Your task to perform on an android device: turn off picture-in-picture Image 0: 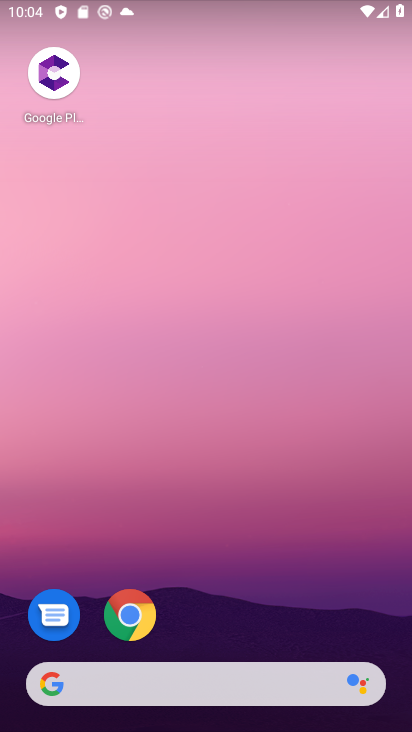
Step 0: click (129, 617)
Your task to perform on an android device: turn off picture-in-picture Image 1: 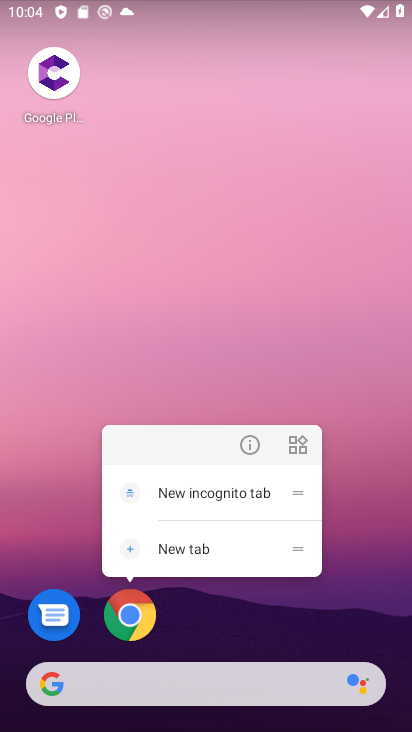
Step 1: click (251, 451)
Your task to perform on an android device: turn off picture-in-picture Image 2: 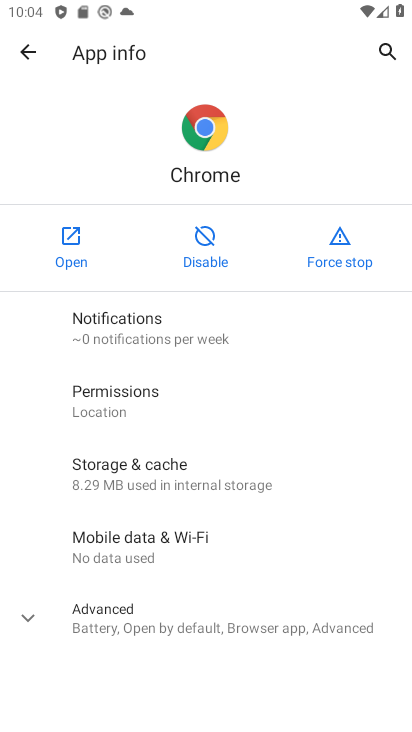
Step 2: drag from (240, 569) to (182, 52)
Your task to perform on an android device: turn off picture-in-picture Image 3: 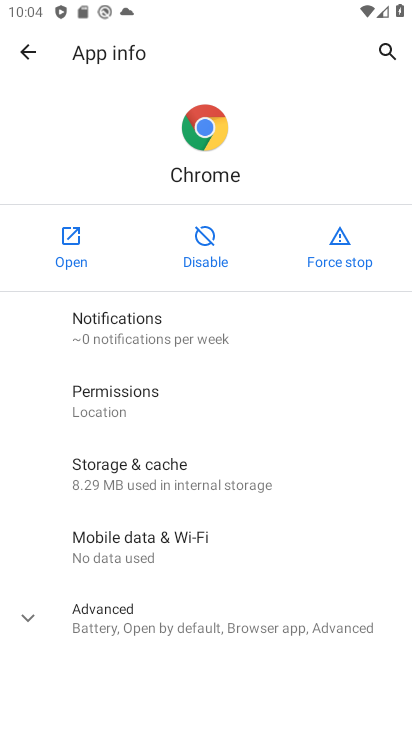
Step 3: click (126, 625)
Your task to perform on an android device: turn off picture-in-picture Image 4: 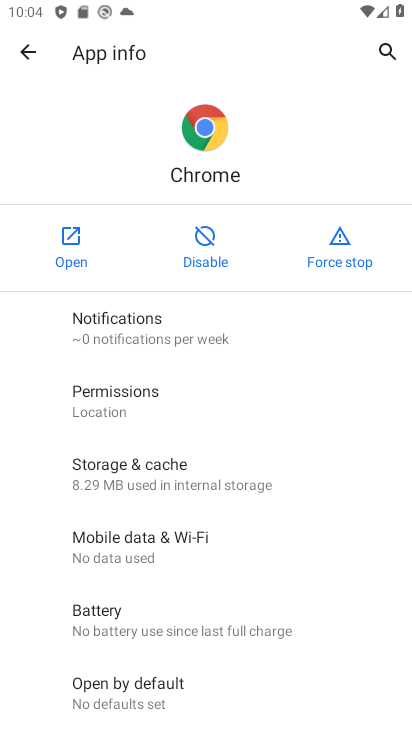
Step 4: drag from (243, 558) to (218, 302)
Your task to perform on an android device: turn off picture-in-picture Image 5: 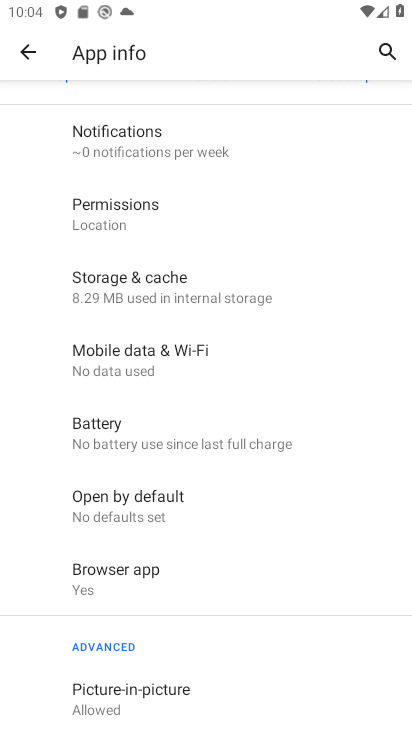
Step 5: drag from (219, 645) to (164, 98)
Your task to perform on an android device: turn off picture-in-picture Image 6: 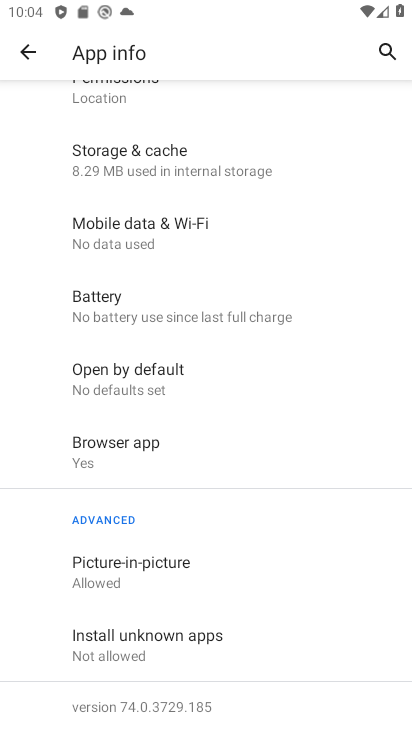
Step 6: drag from (216, 625) to (169, 167)
Your task to perform on an android device: turn off picture-in-picture Image 7: 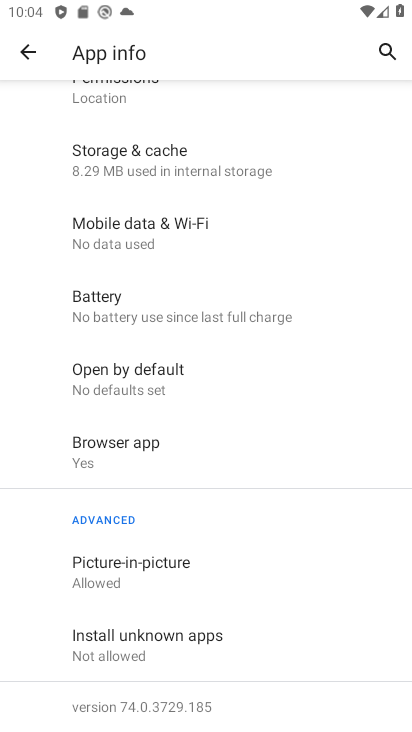
Step 7: drag from (211, 624) to (167, 112)
Your task to perform on an android device: turn off picture-in-picture Image 8: 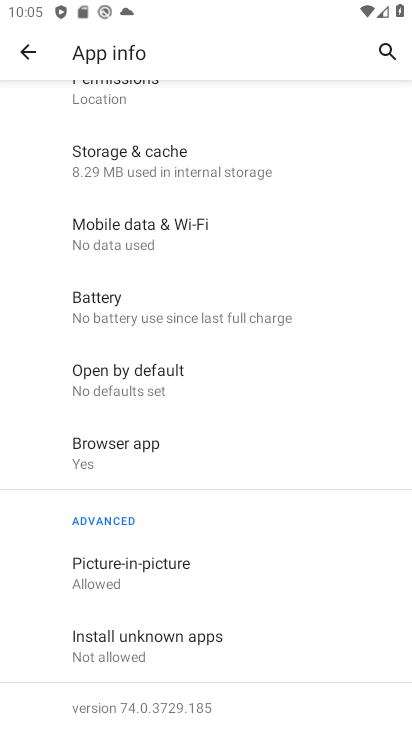
Step 8: click (157, 568)
Your task to perform on an android device: turn off picture-in-picture Image 9: 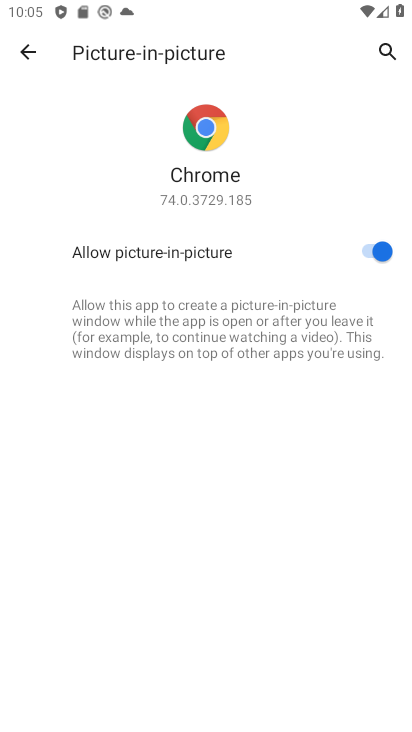
Step 9: click (378, 257)
Your task to perform on an android device: turn off picture-in-picture Image 10: 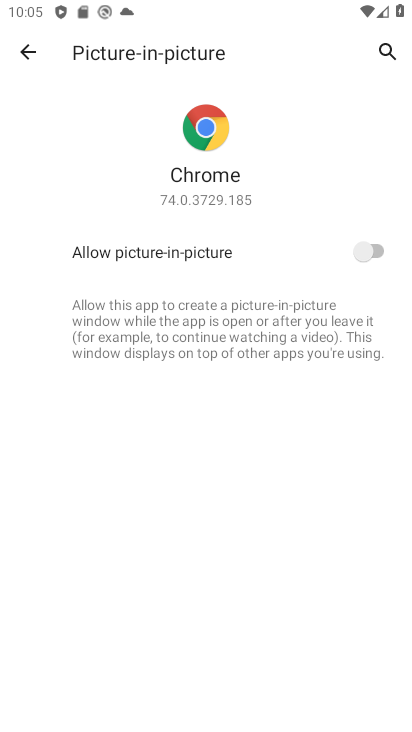
Step 10: task complete